Your task to perform on an android device: see sites visited before in the chrome app Image 0: 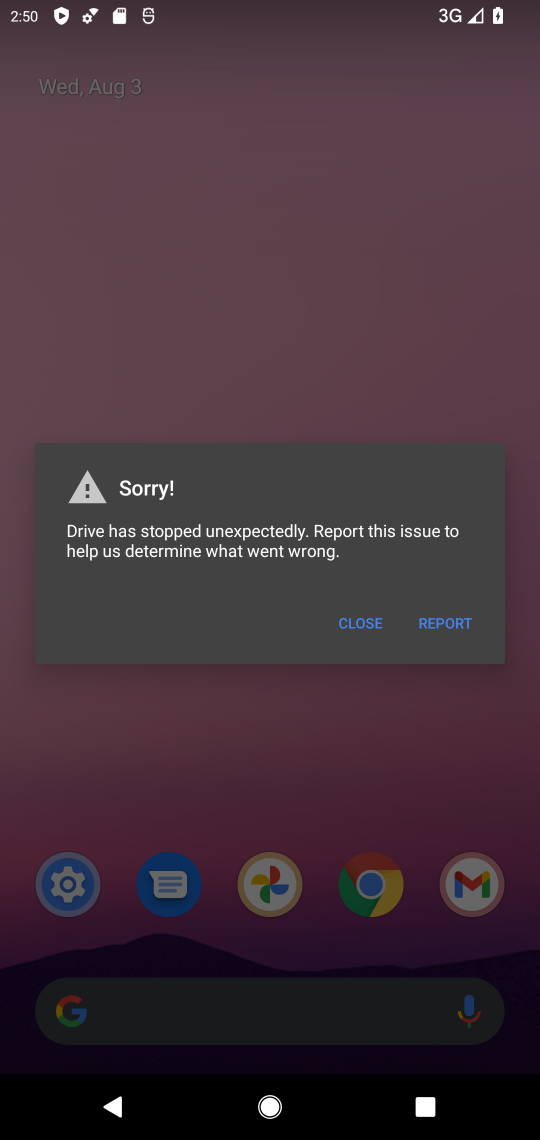
Step 0: click (361, 629)
Your task to perform on an android device: see sites visited before in the chrome app Image 1: 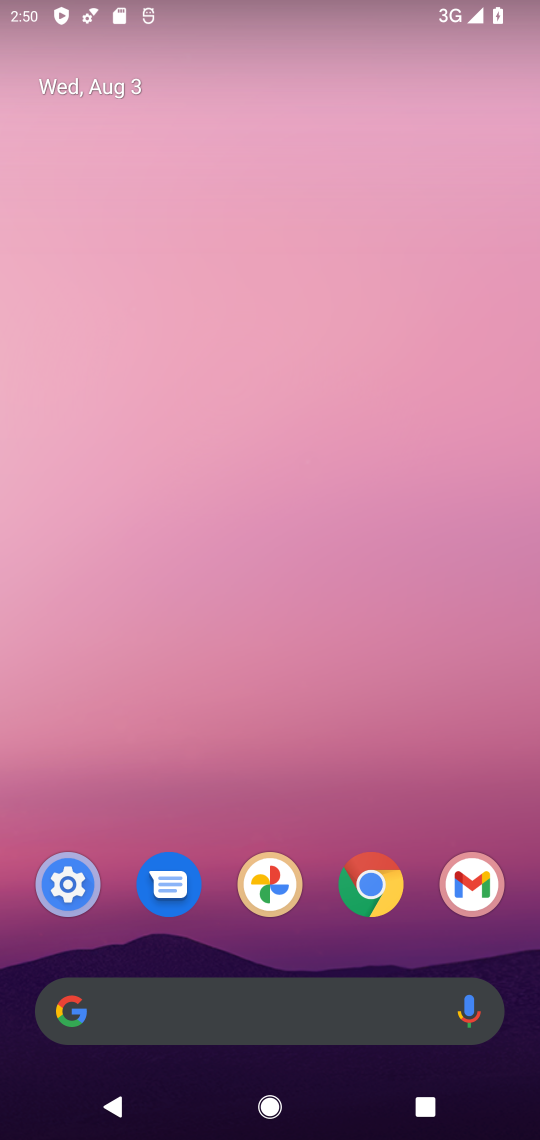
Step 1: click (361, 886)
Your task to perform on an android device: see sites visited before in the chrome app Image 2: 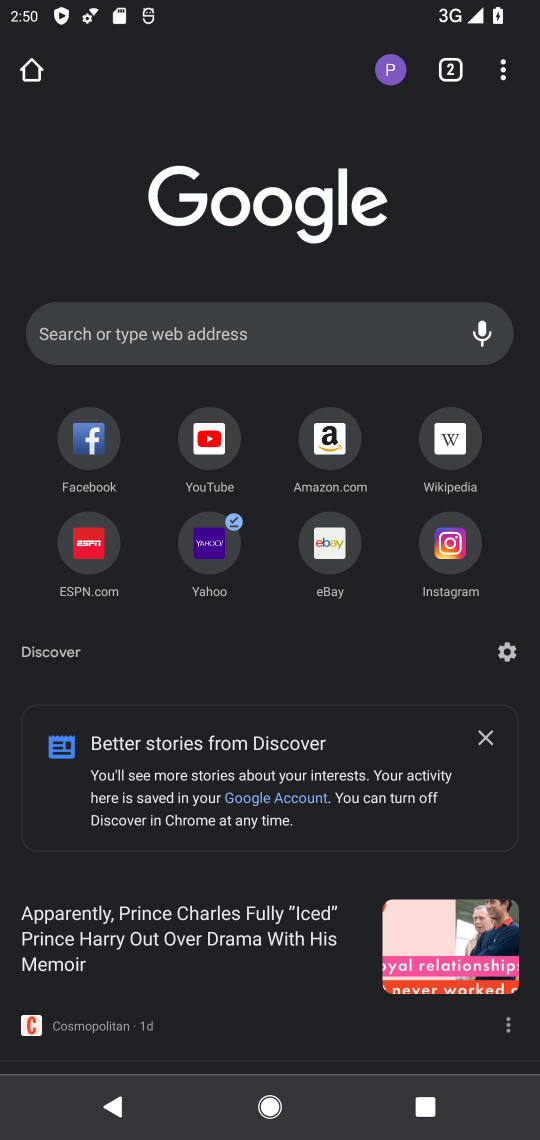
Step 2: click (508, 100)
Your task to perform on an android device: see sites visited before in the chrome app Image 3: 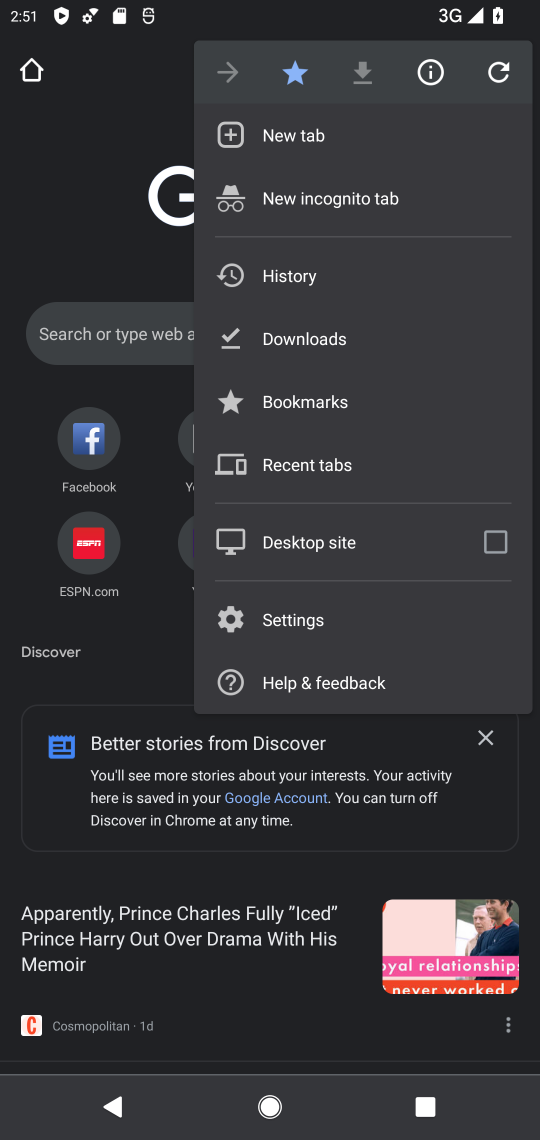
Step 3: click (242, 470)
Your task to perform on an android device: see sites visited before in the chrome app Image 4: 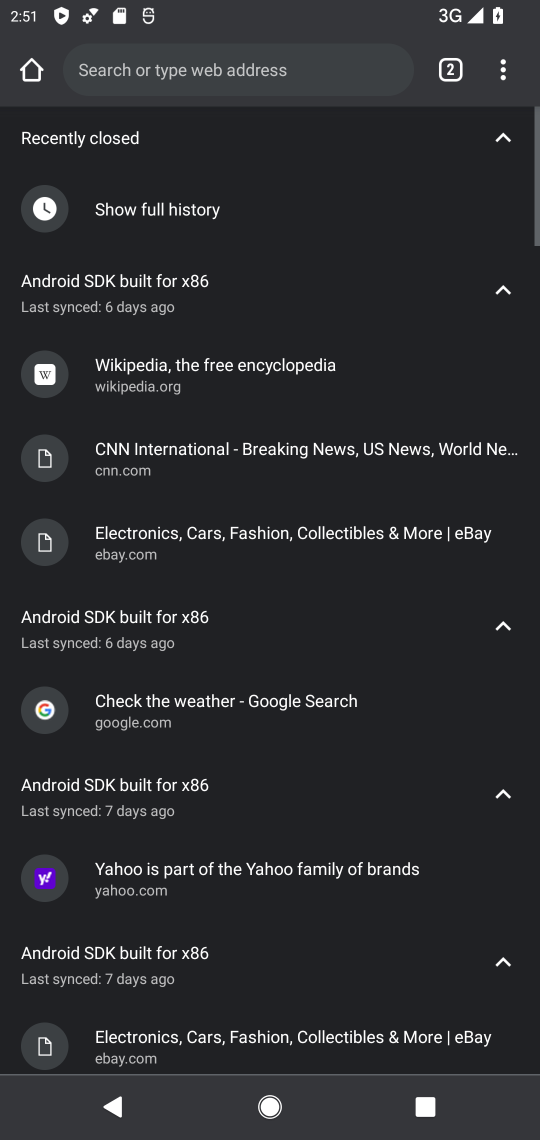
Step 4: task complete